Your task to perform on an android device: What's on the menu at Cheesecake Factory? Image 0: 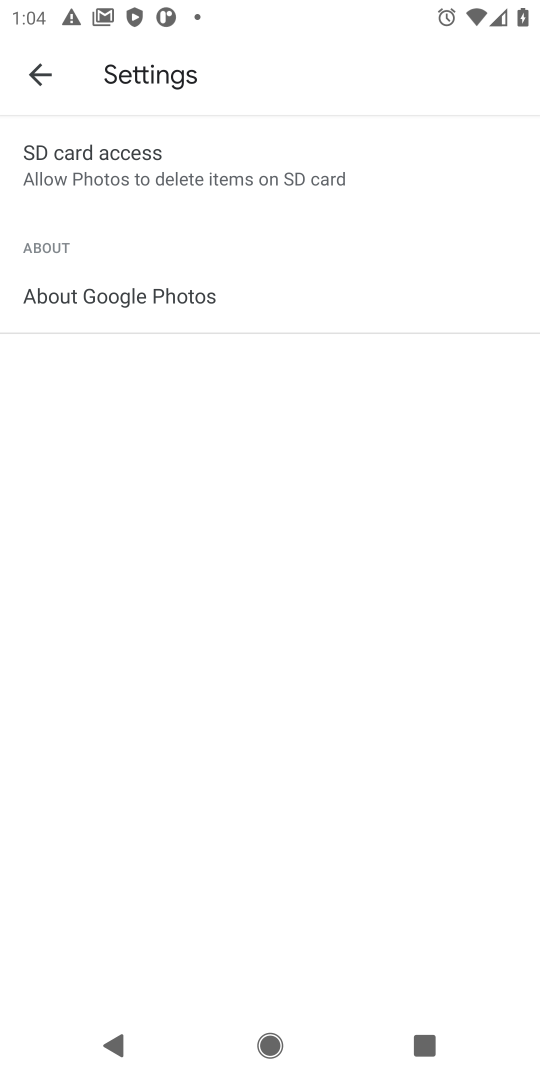
Step 0: press home button
Your task to perform on an android device: What's on the menu at Cheesecake Factory? Image 1: 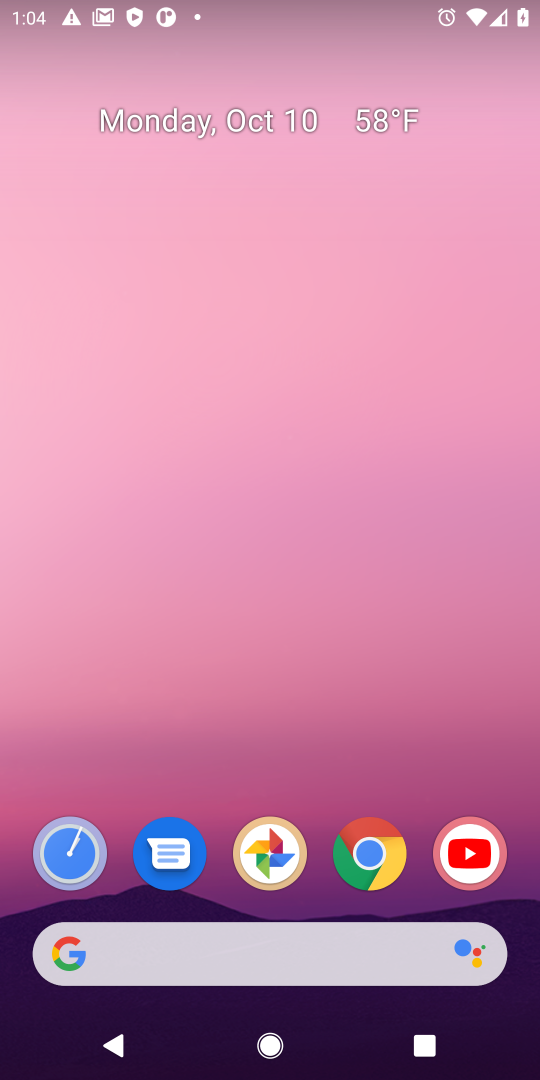
Step 1: click (388, 837)
Your task to perform on an android device: What's on the menu at Cheesecake Factory? Image 2: 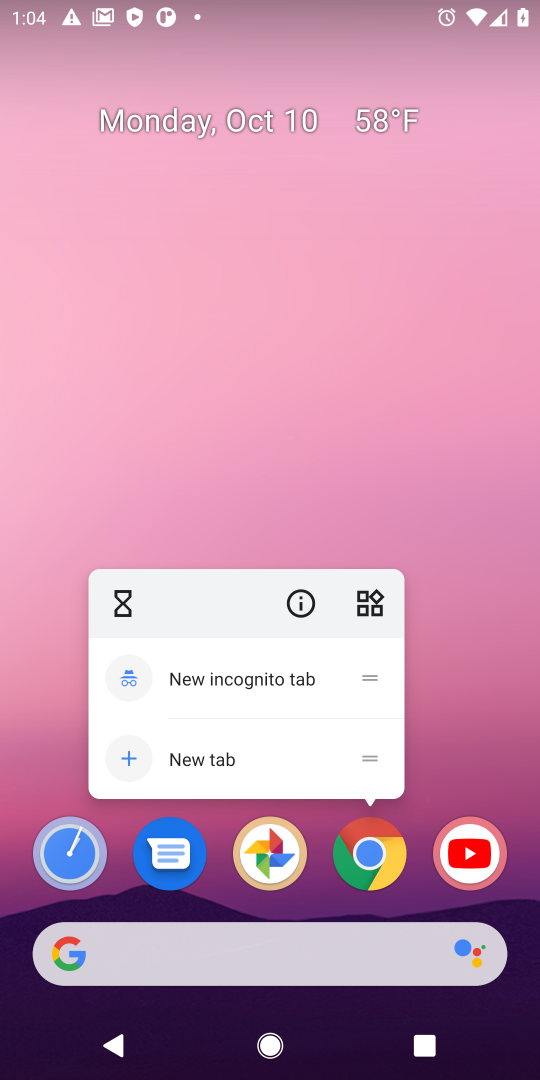
Step 2: click (374, 874)
Your task to perform on an android device: What's on the menu at Cheesecake Factory? Image 3: 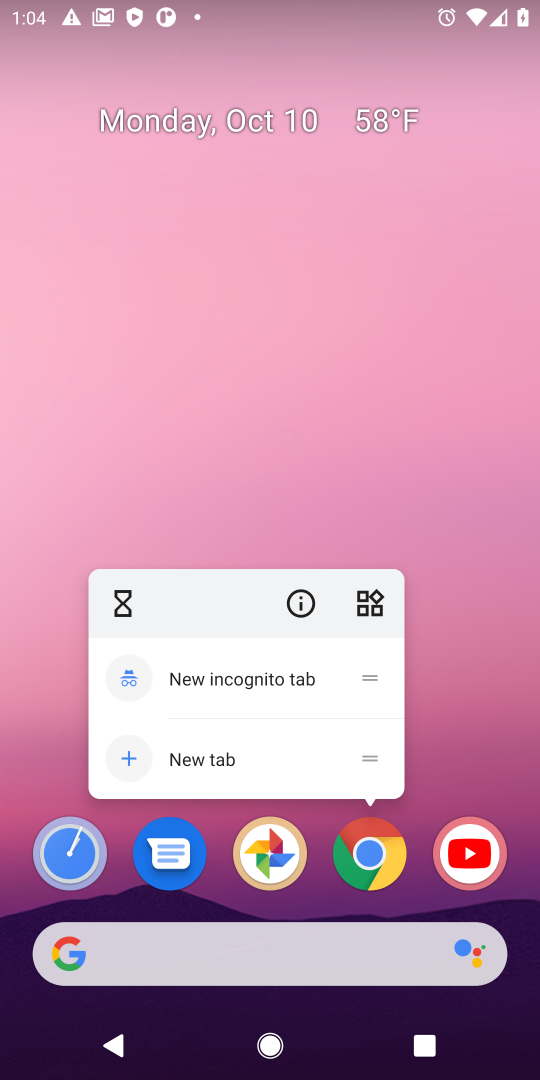
Step 3: click (370, 876)
Your task to perform on an android device: What's on the menu at Cheesecake Factory? Image 4: 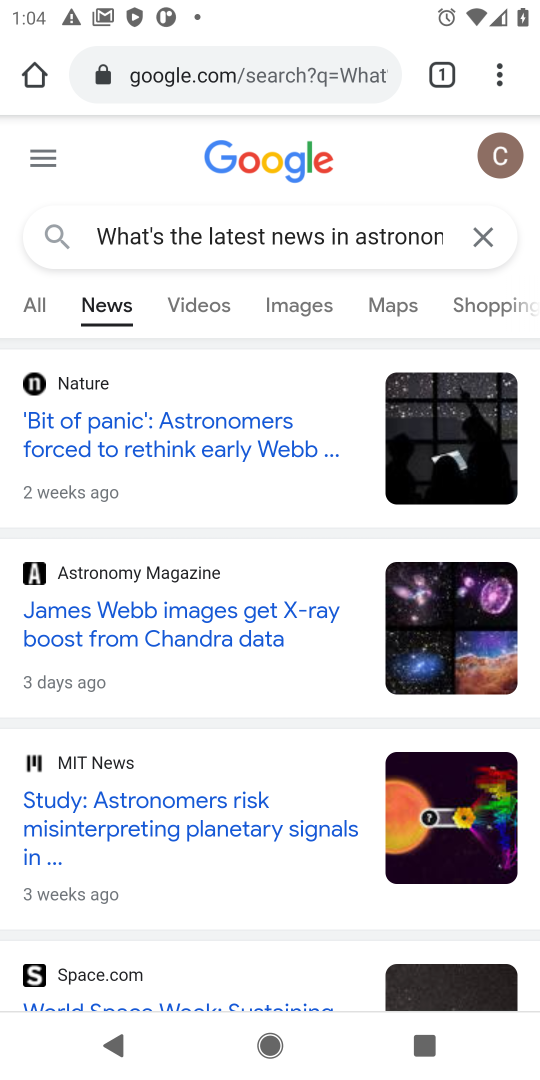
Step 4: click (479, 236)
Your task to perform on an android device: What's on the menu at Cheesecake Factory? Image 5: 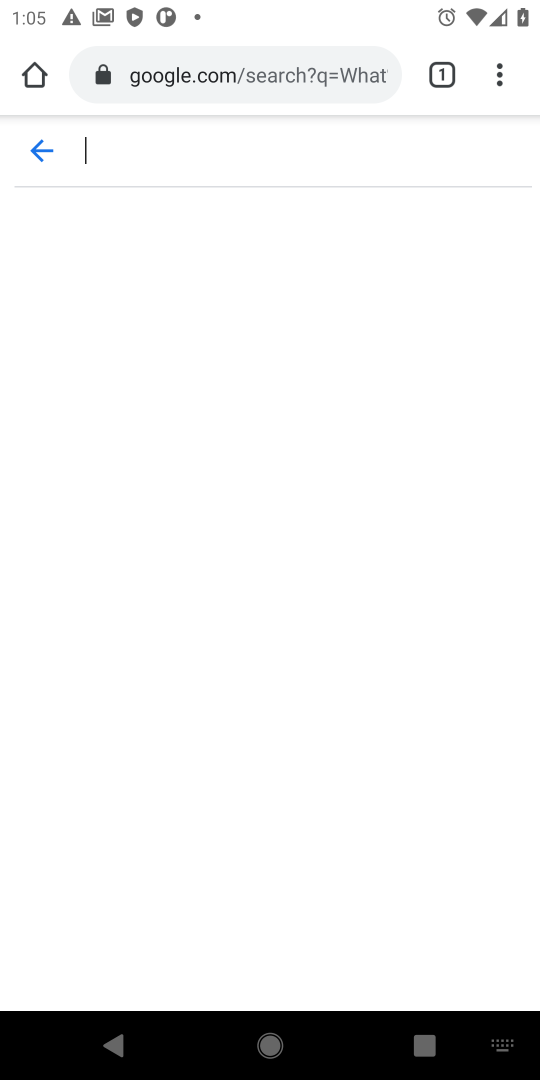
Step 5: type "What's on the menu at Cheesecake Factory?"
Your task to perform on an android device: What's on the menu at Cheesecake Factory? Image 6: 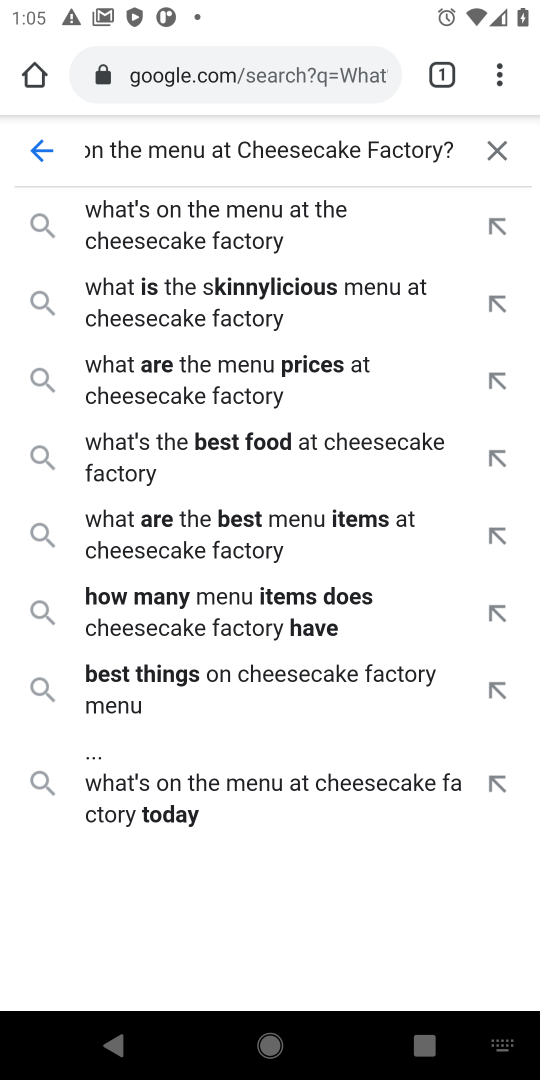
Step 6: press enter
Your task to perform on an android device: What's on the menu at Cheesecake Factory? Image 7: 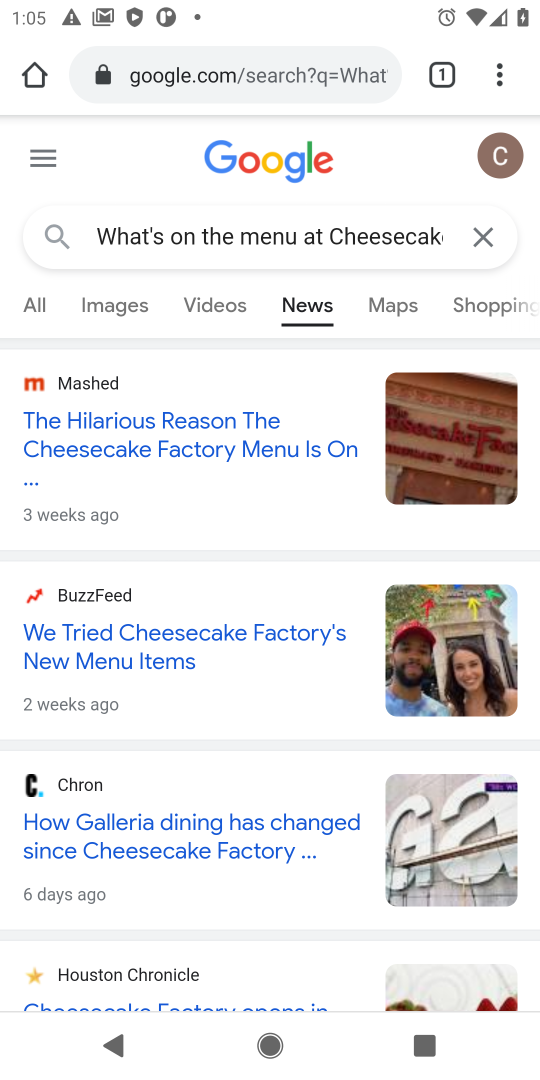
Step 7: task complete